Your task to perform on an android device: open a new tab in the chrome app Image 0: 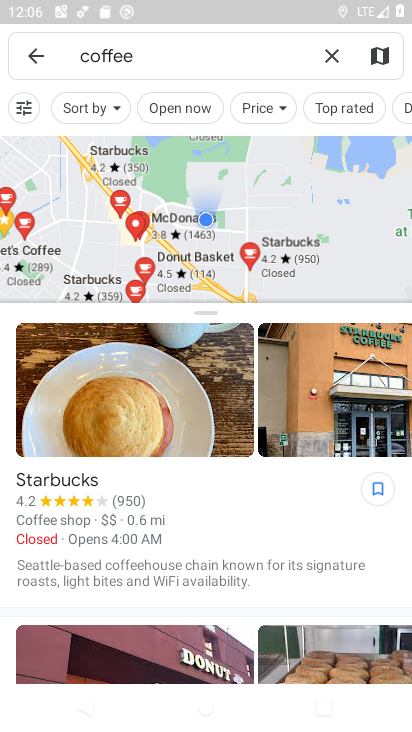
Step 0: click (319, 58)
Your task to perform on an android device: open a new tab in the chrome app Image 1: 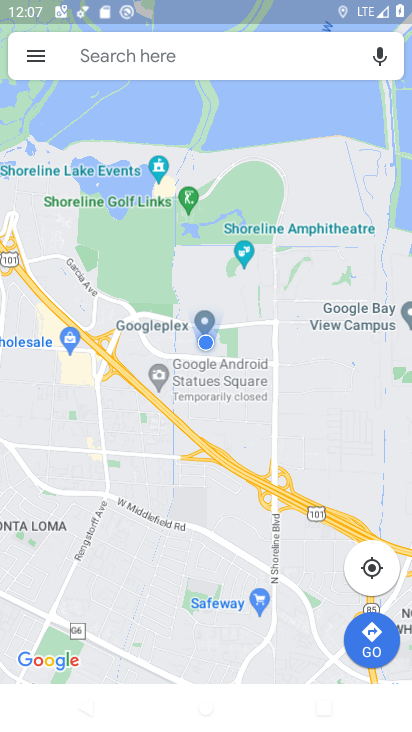
Step 1: press home button
Your task to perform on an android device: open a new tab in the chrome app Image 2: 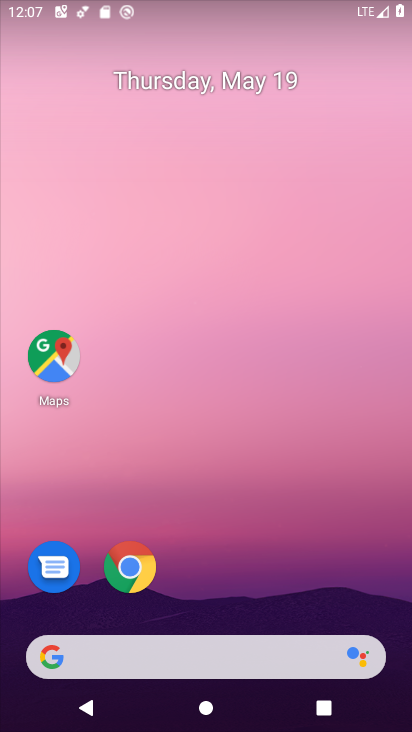
Step 2: click (135, 567)
Your task to perform on an android device: open a new tab in the chrome app Image 3: 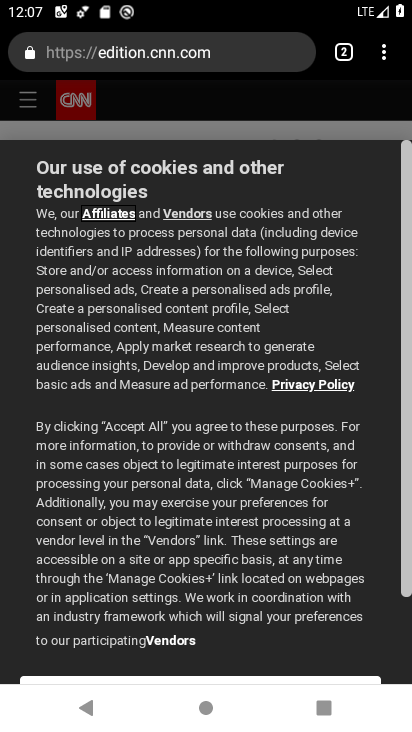
Step 3: task complete